Your task to perform on an android device: How much does a3 bedroom apartment rent for in Portland? Image 0: 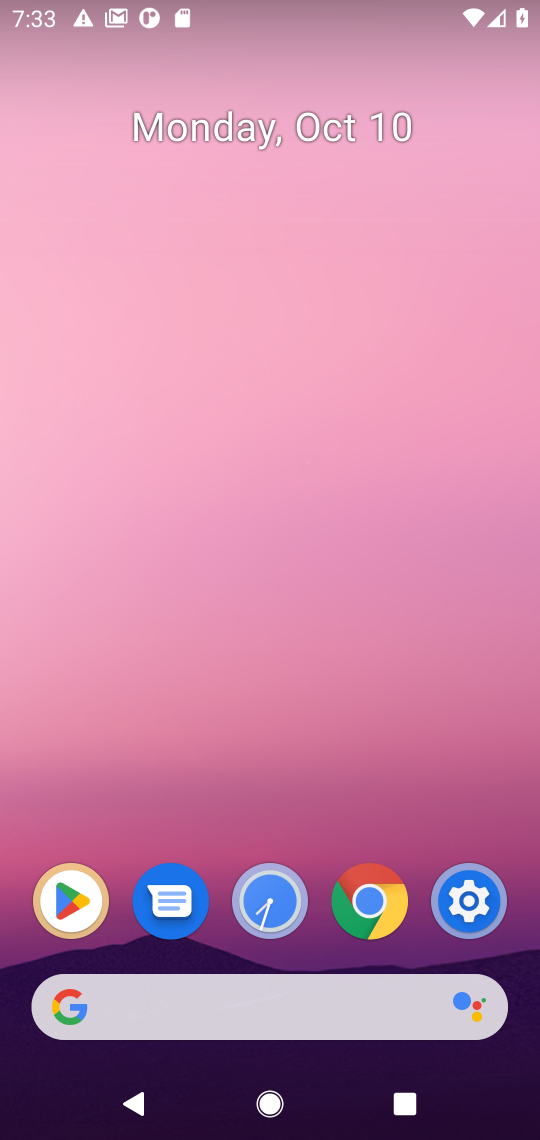
Step 0: click (410, 1029)
Your task to perform on an android device: How much does a3 bedroom apartment rent for in Portland? Image 1: 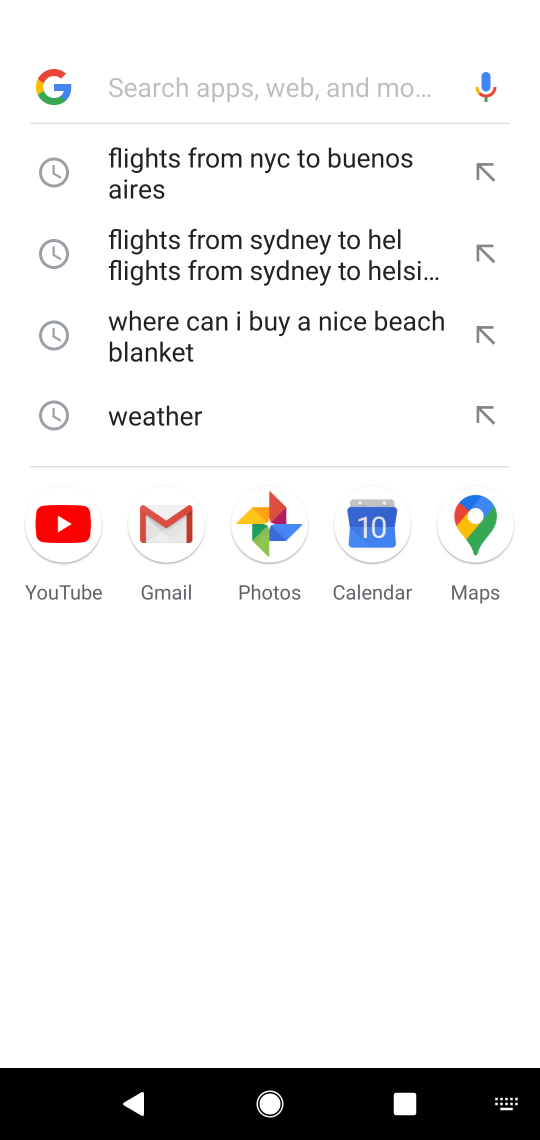
Step 1: type "3 bedroom apartment rent for in Portland?"
Your task to perform on an android device: How much does a3 bedroom apartment rent for in Portland? Image 2: 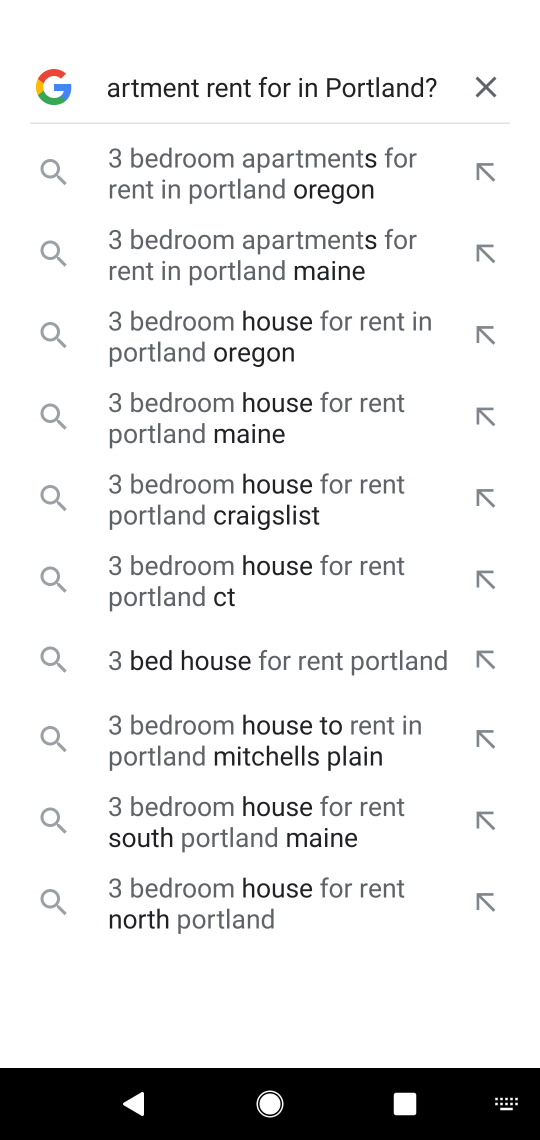
Step 2: type ""
Your task to perform on an android device: How much does a3 bedroom apartment rent for in Portland? Image 3: 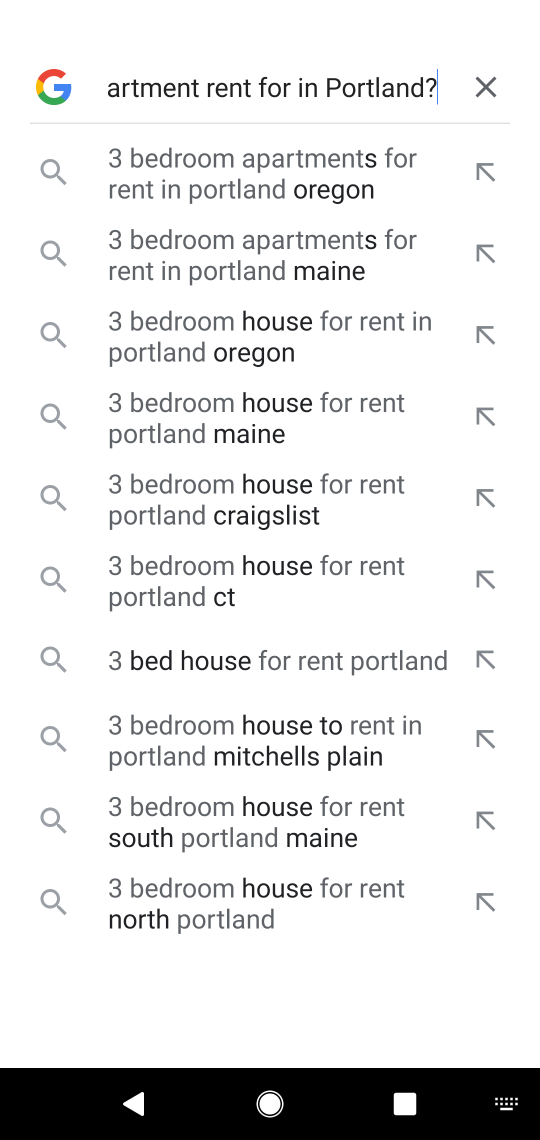
Step 3: press enter
Your task to perform on an android device: How much does a3 bedroom apartment rent for in Portland? Image 4: 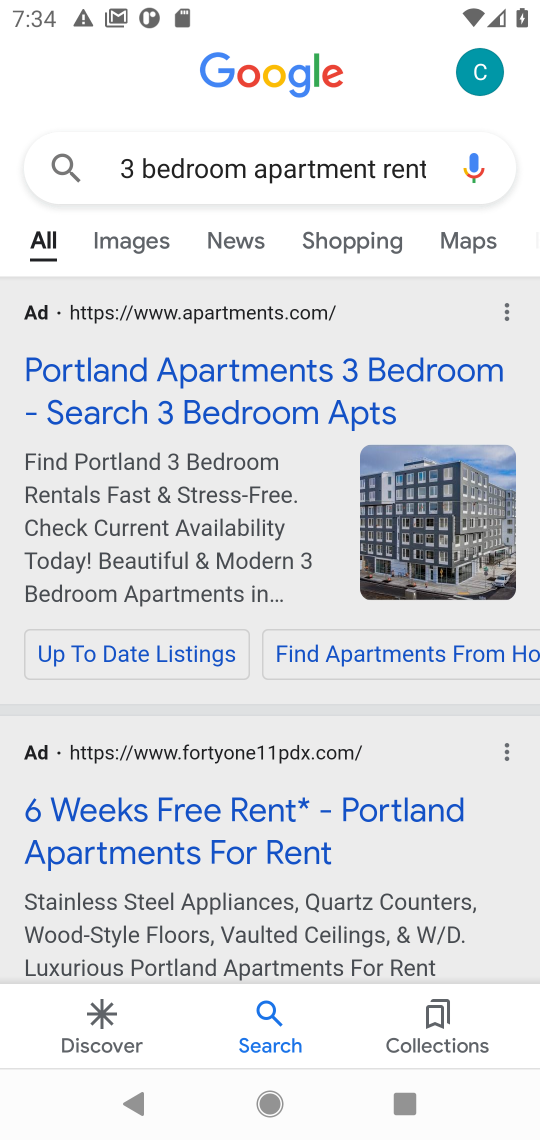
Step 4: drag from (10, 810) to (31, 299)
Your task to perform on an android device: How much does a3 bedroom apartment rent for in Portland? Image 5: 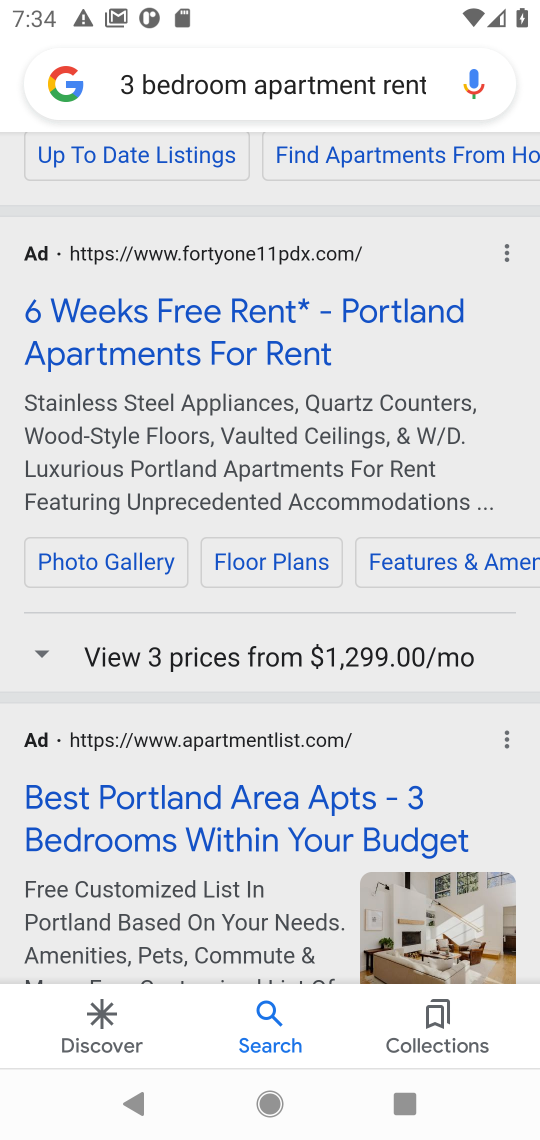
Step 5: click (37, 650)
Your task to perform on an android device: How much does a3 bedroom apartment rent for in Portland? Image 6: 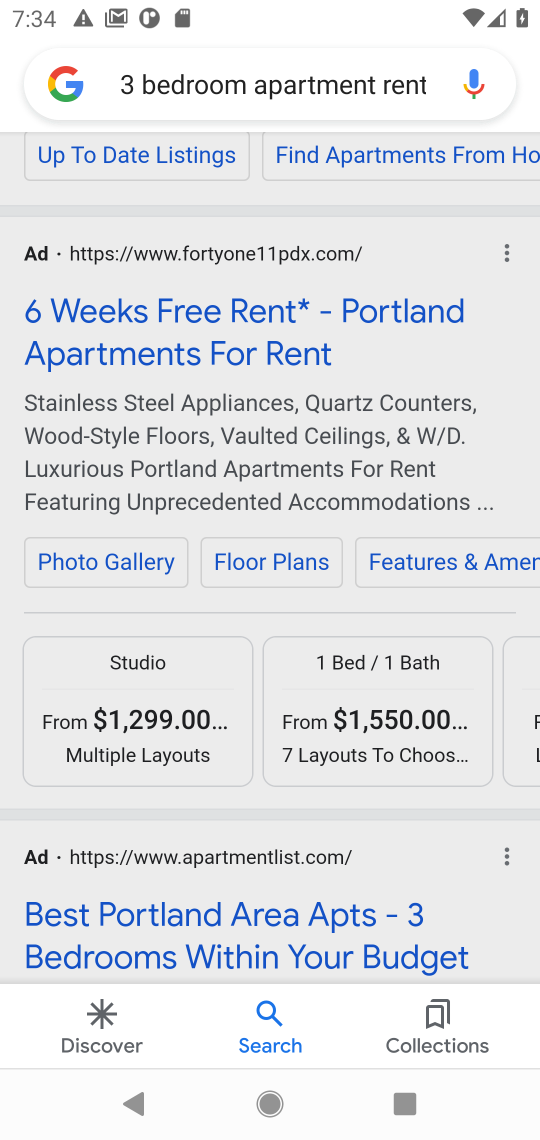
Step 6: drag from (16, 831) to (17, 327)
Your task to perform on an android device: How much does a3 bedroom apartment rent for in Portland? Image 7: 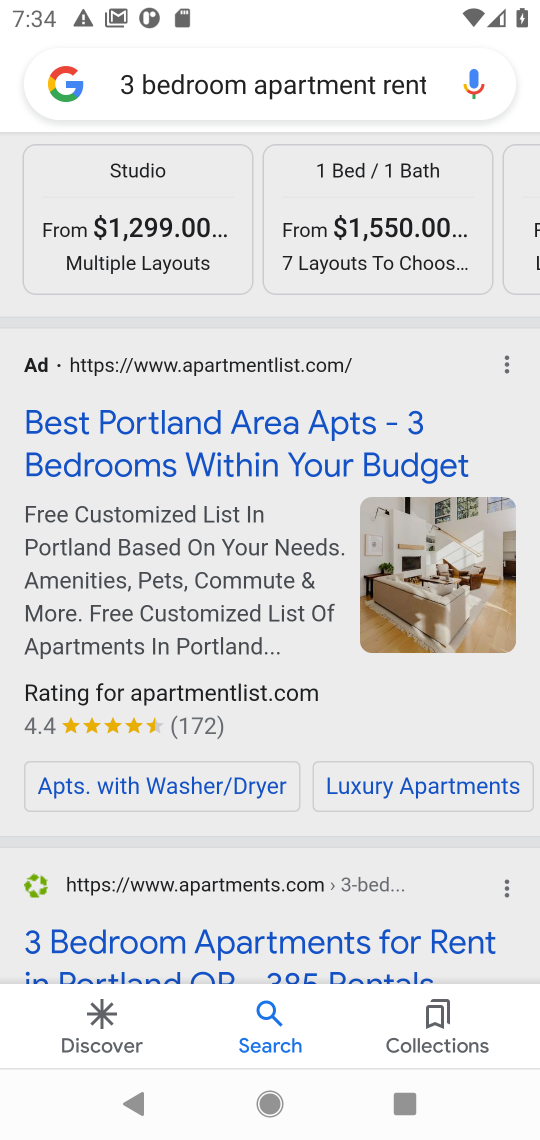
Step 7: drag from (17, 909) to (52, 334)
Your task to perform on an android device: How much does a3 bedroom apartment rent for in Portland? Image 8: 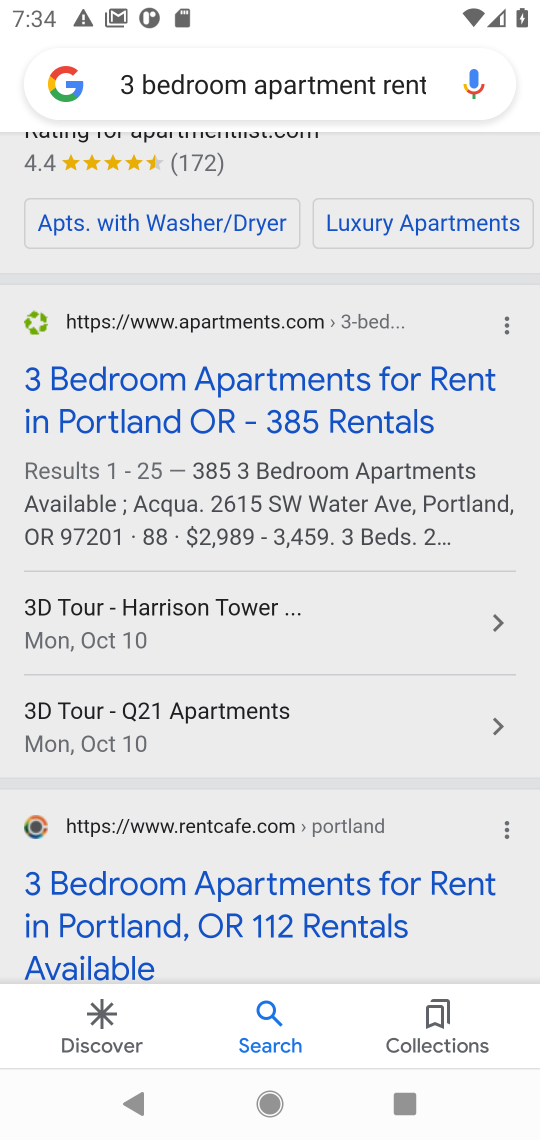
Step 8: drag from (62, 730) to (60, 521)
Your task to perform on an android device: How much does a3 bedroom apartment rent for in Portland? Image 9: 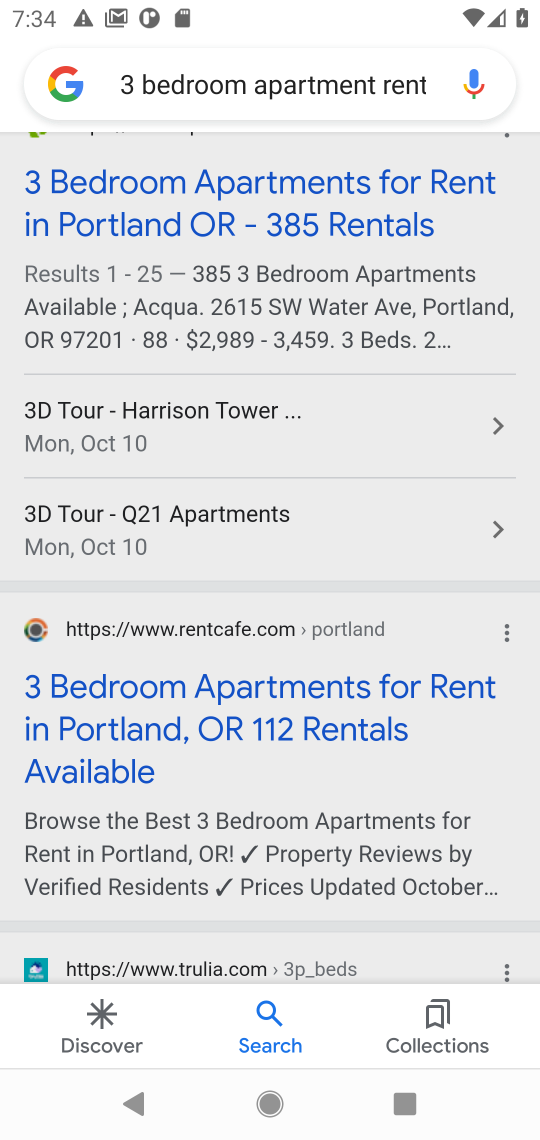
Step 9: drag from (10, 516) to (13, 415)
Your task to perform on an android device: How much does a3 bedroom apartment rent for in Portland? Image 10: 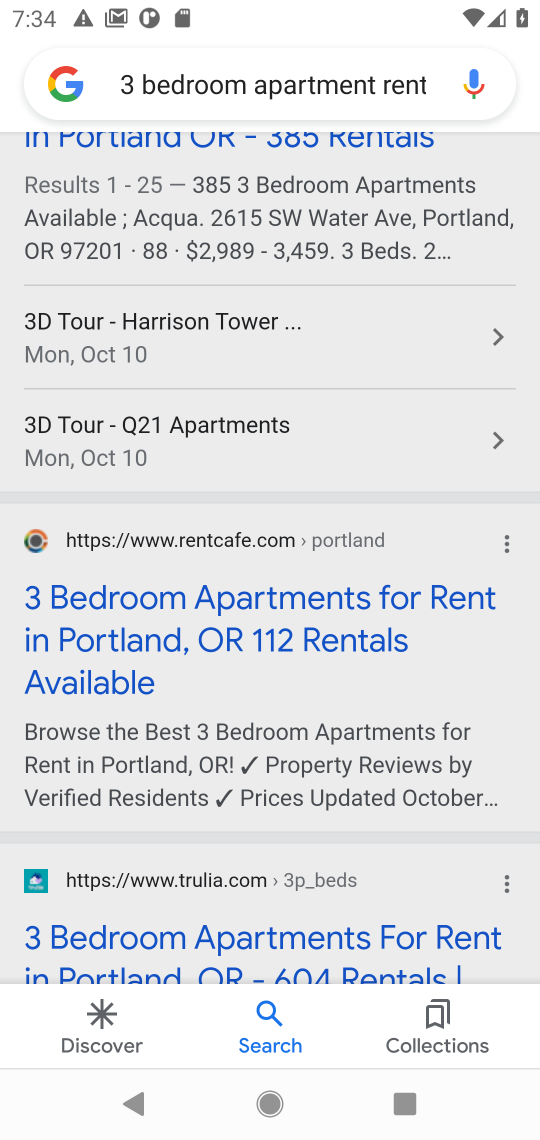
Step 10: drag from (25, 539) to (25, 457)
Your task to perform on an android device: How much does a3 bedroom apartment rent for in Portland? Image 11: 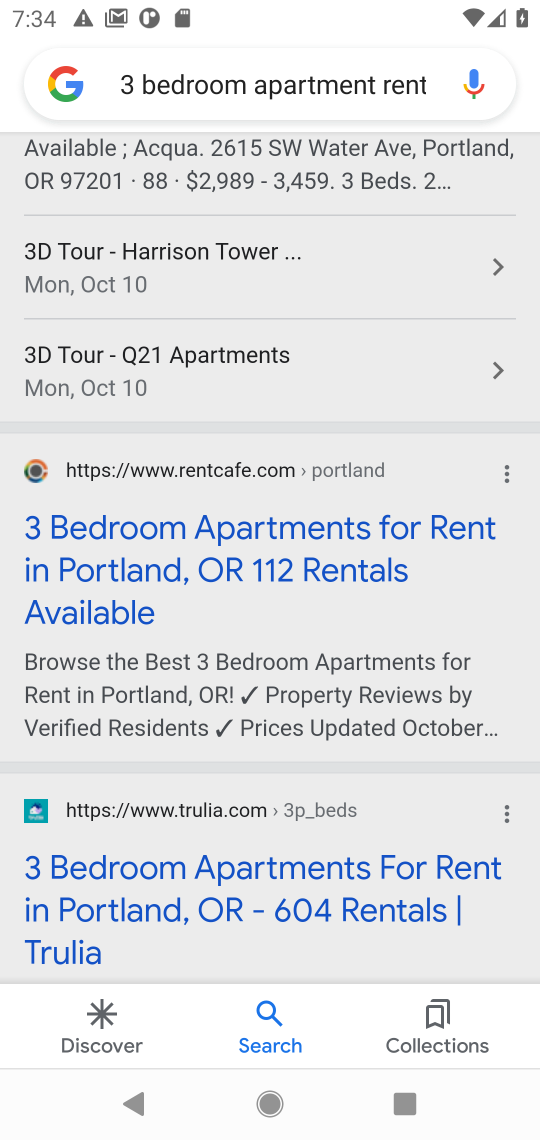
Step 11: click (105, 546)
Your task to perform on an android device: How much does a3 bedroom apartment rent for in Portland? Image 12: 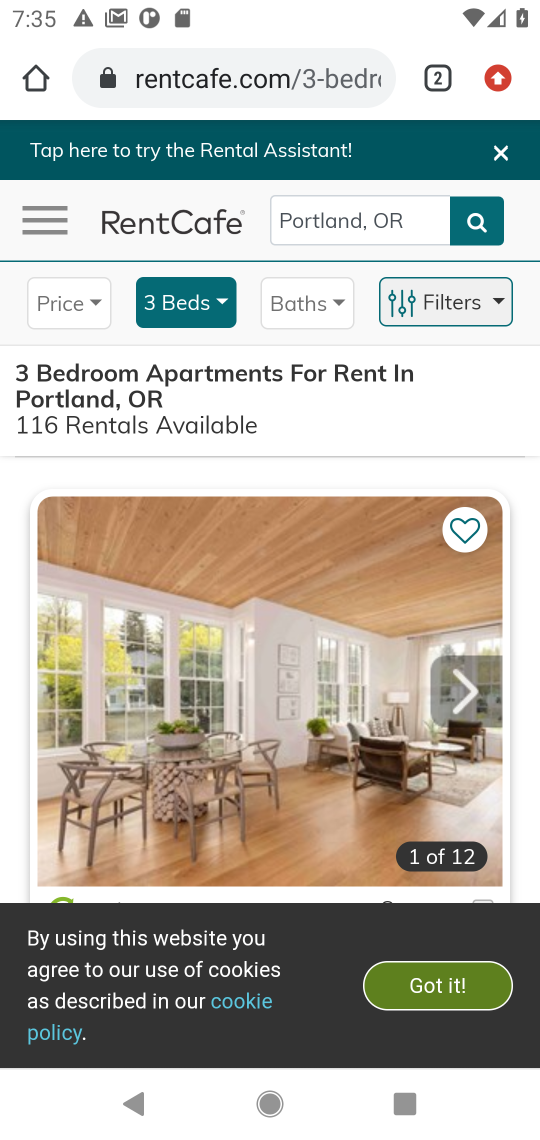
Step 12: task complete